Your task to perform on an android device: Search for hotels in Chicago Image 0: 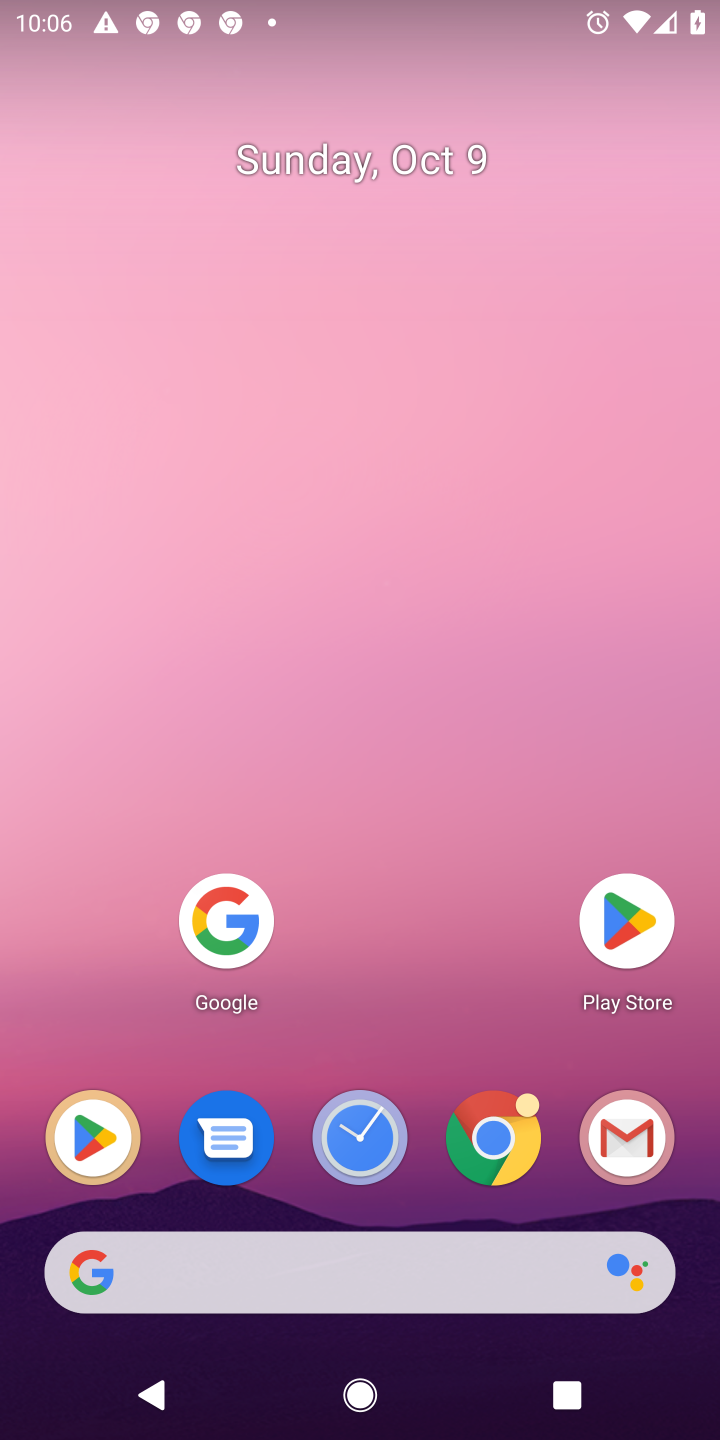
Step 0: click (203, 934)
Your task to perform on an android device: Search for hotels in Chicago Image 1: 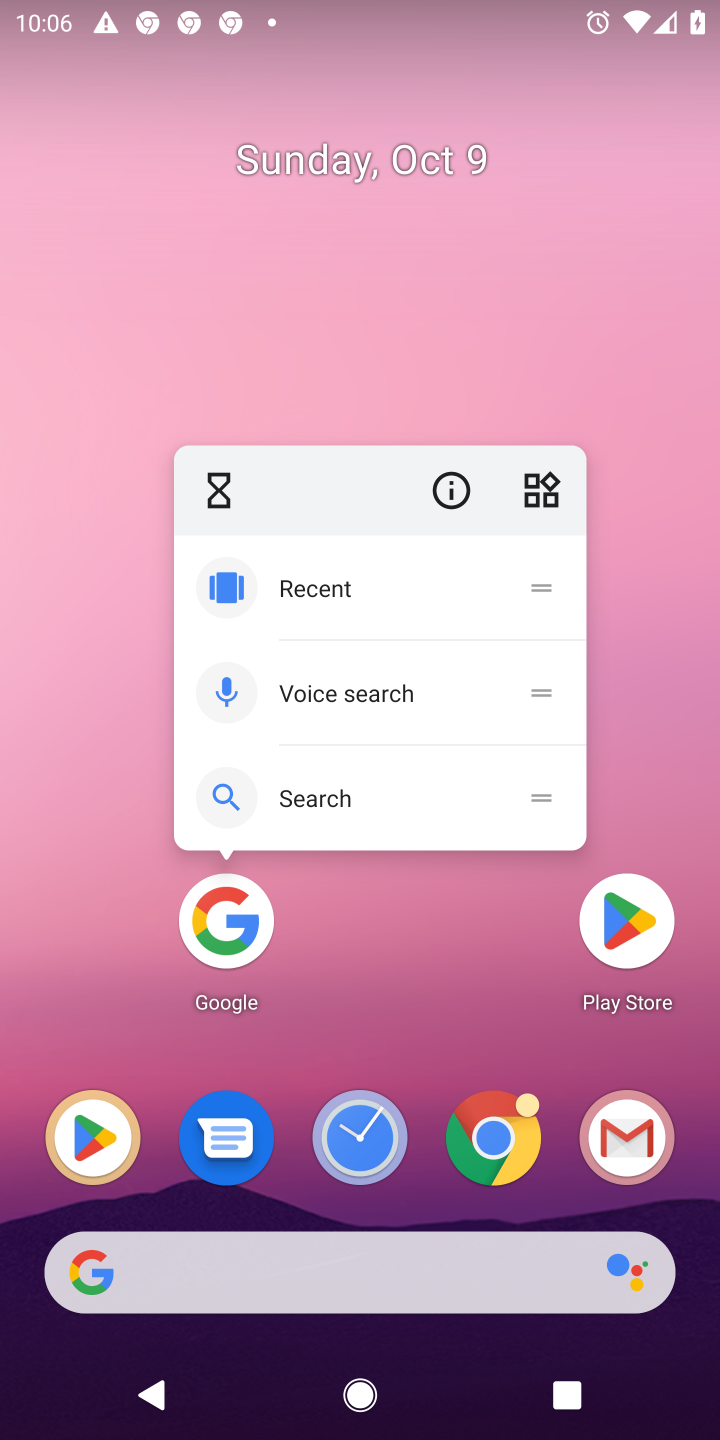
Step 1: click (242, 913)
Your task to perform on an android device: Search for hotels in Chicago Image 2: 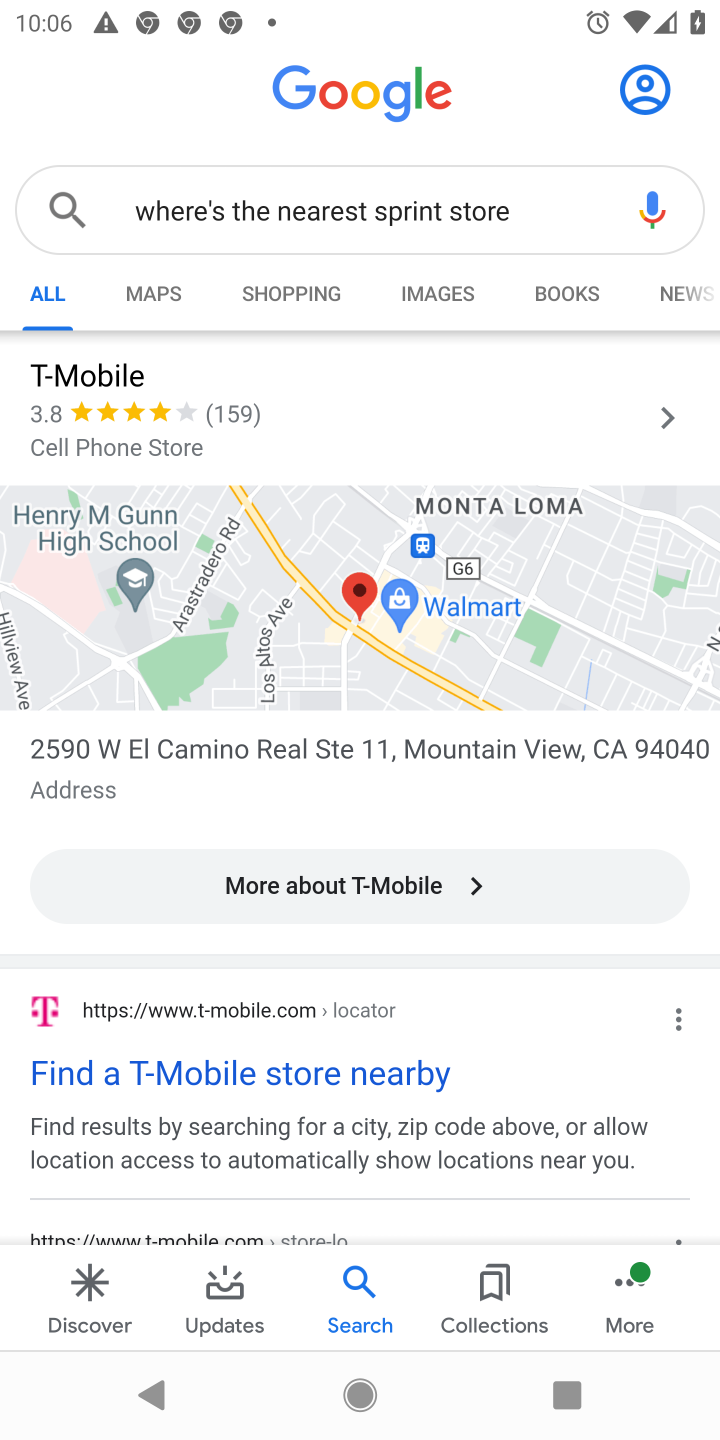
Step 2: click (520, 219)
Your task to perform on an android device: Search for hotels in Chicago Image 3: 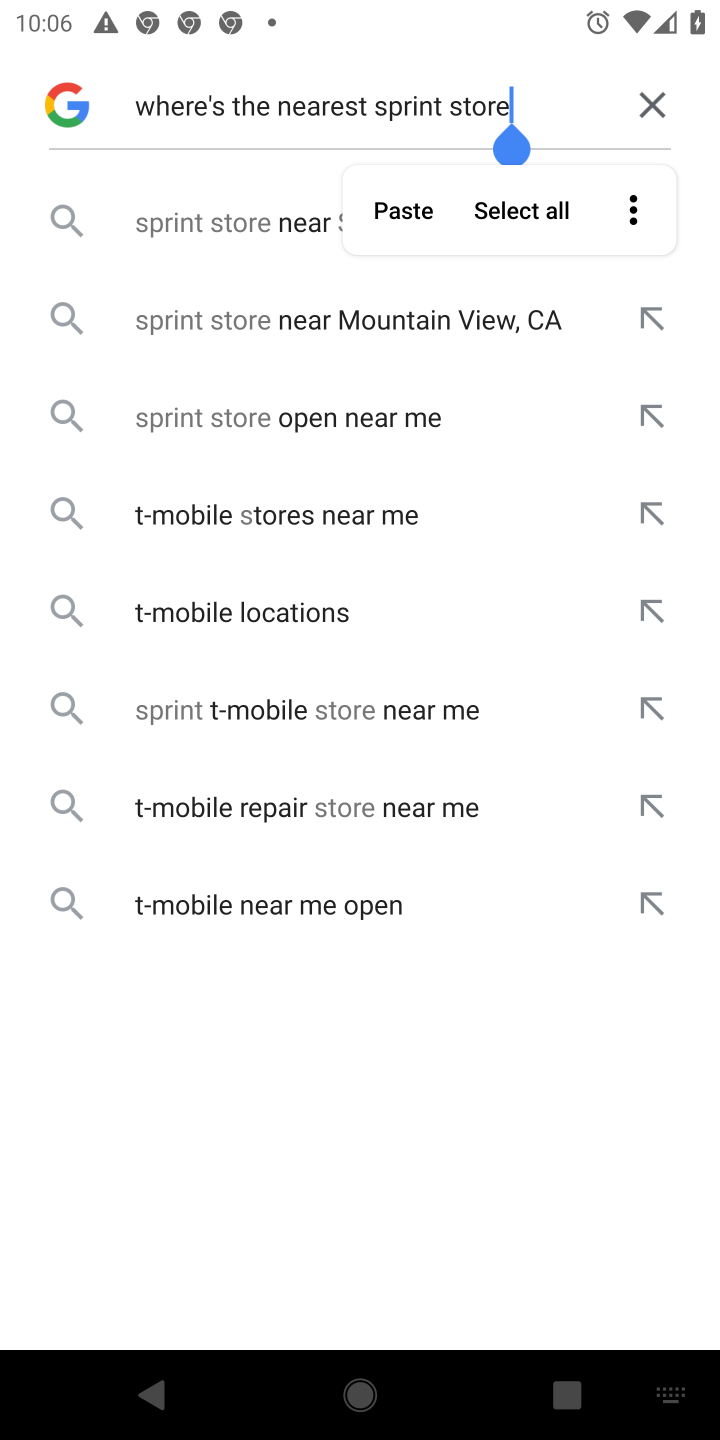
Step 3: click (651, 98)
Your task to perform on an android device: Search for hotels in Chicago Image 4: 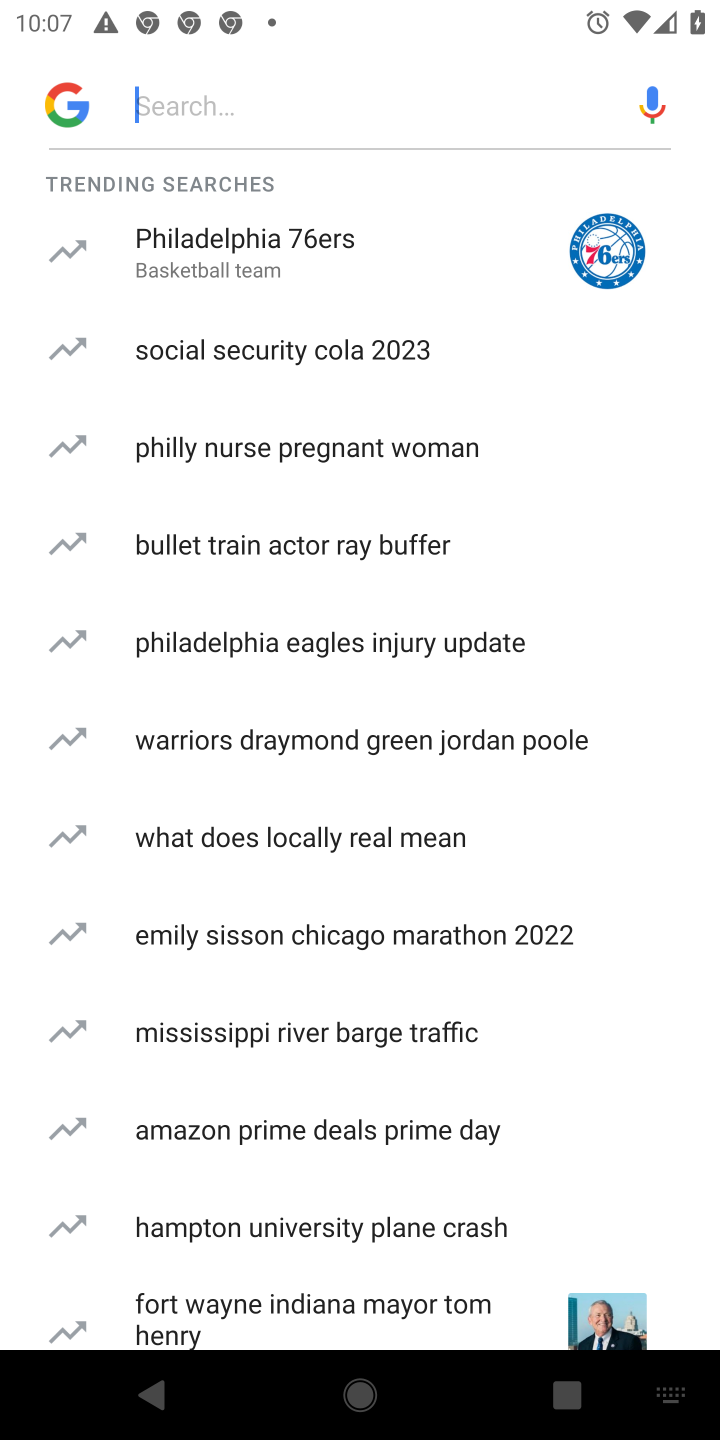
Step 4: click (278, 92)
Your task to perform on an android device: Search for hotels in Chicago Image 5: 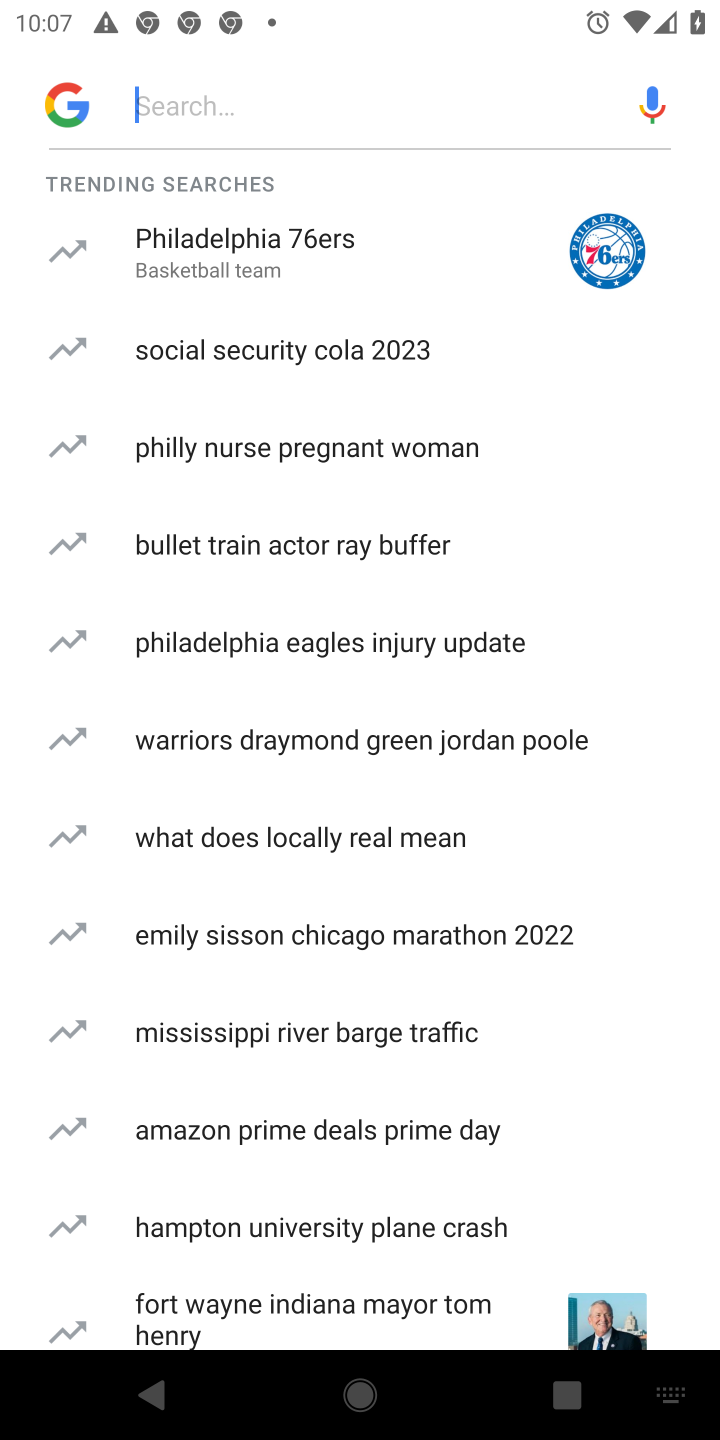
Step 5: type "Search for hotels in Chicago "
Your task to perform on an android device: Search for hotels in Chicago Image 6: 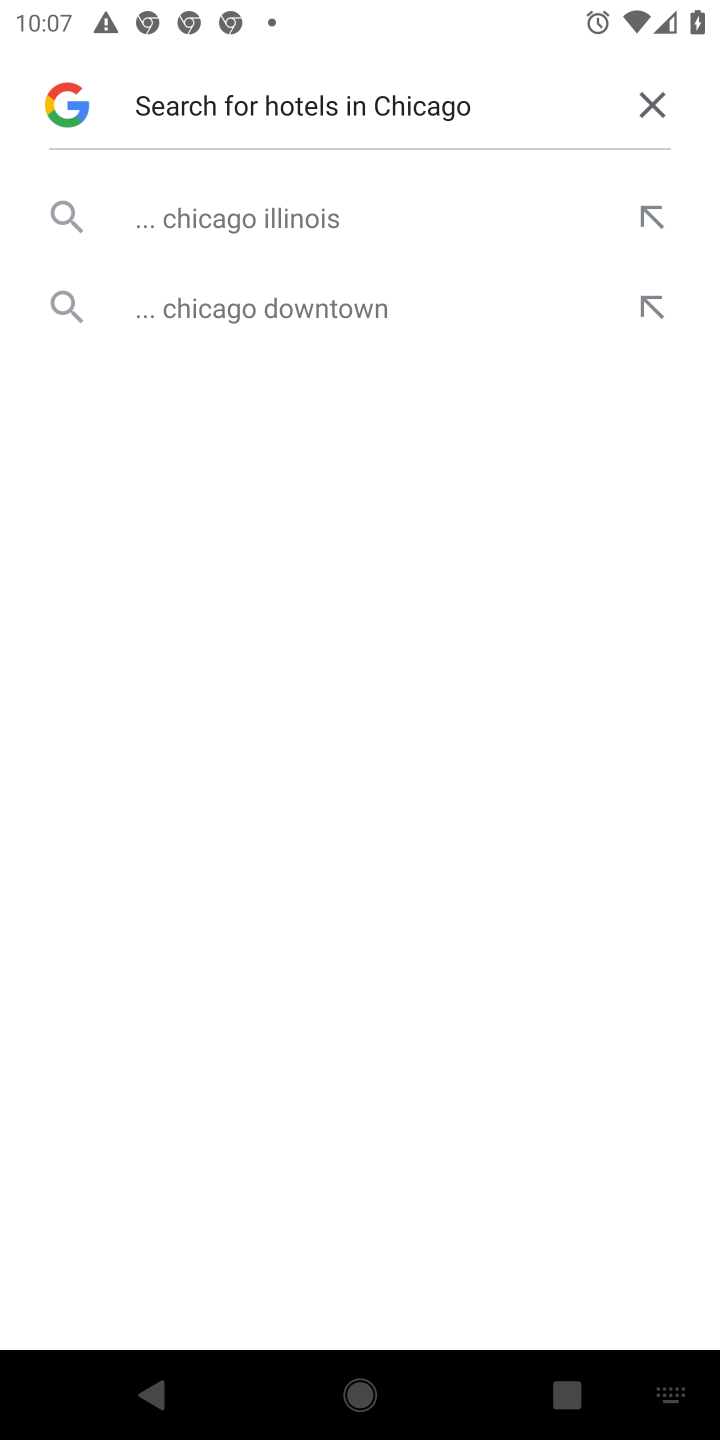
Step 6: click (297, 221)
Your task to perform on an android device: Search for hotels in Chicago Image 7: 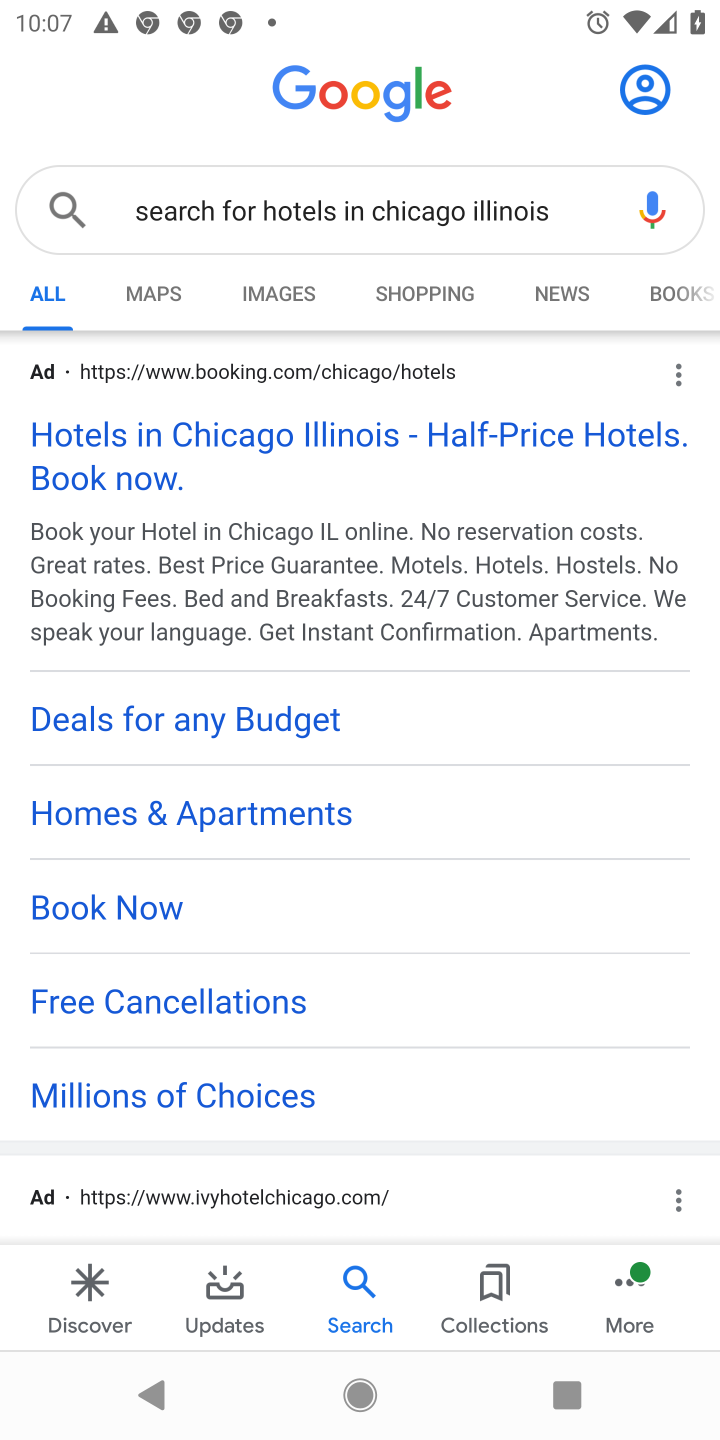
Step 7: click (228, 449)
Your task to perform on an android device: Search for hotels in Chicago Image 8: 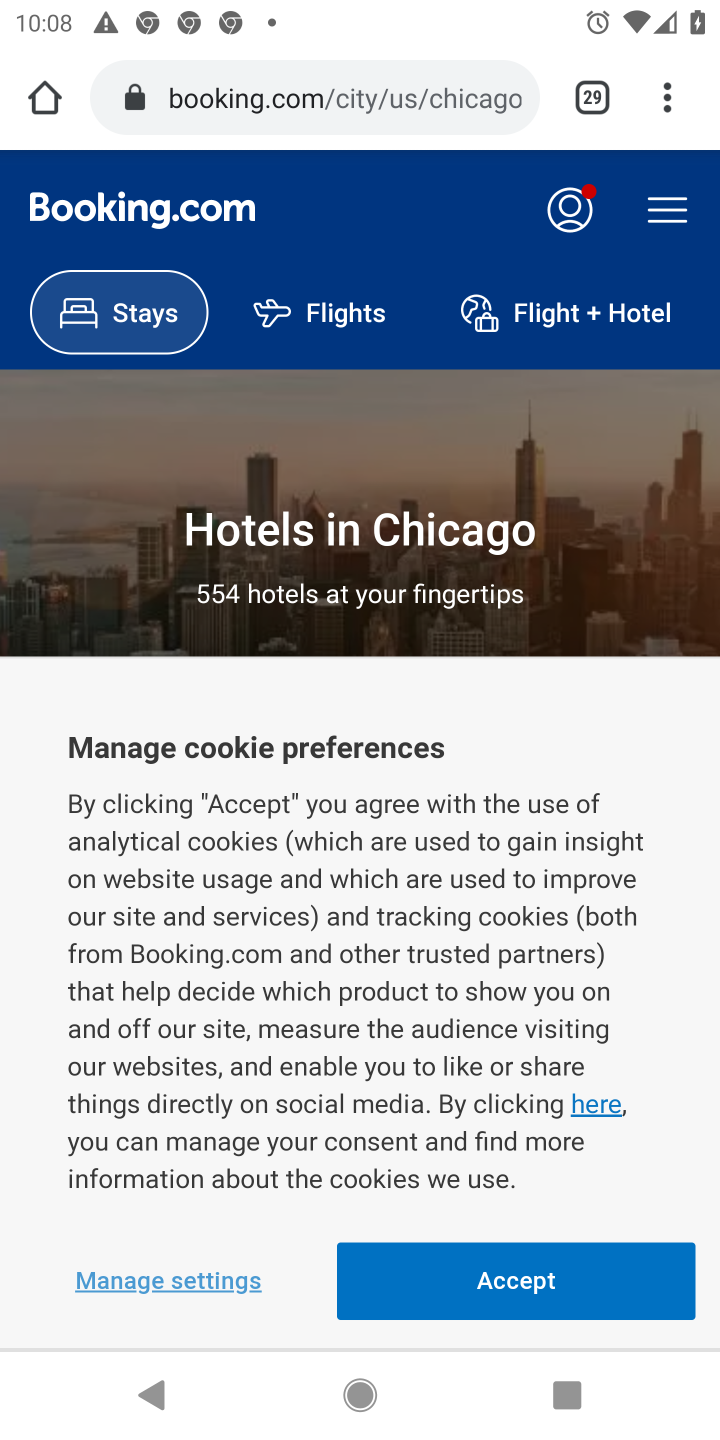
Step 8: click (515, 1253)
Your task to perform on an android device: Search for hotels in Chicago Image 9: 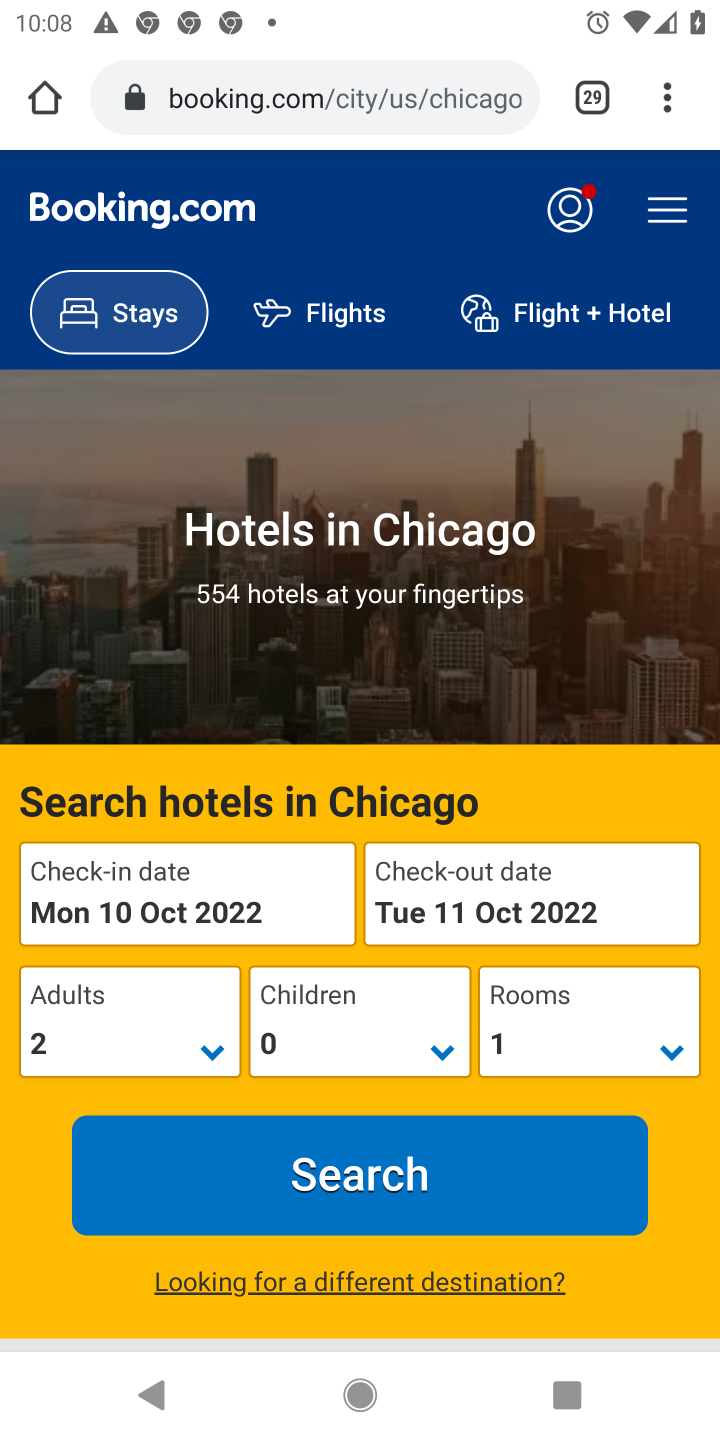
Step 9: click (337, 1186)
Your task to perform on an android device: Search for hotels in Chicago Image 10: 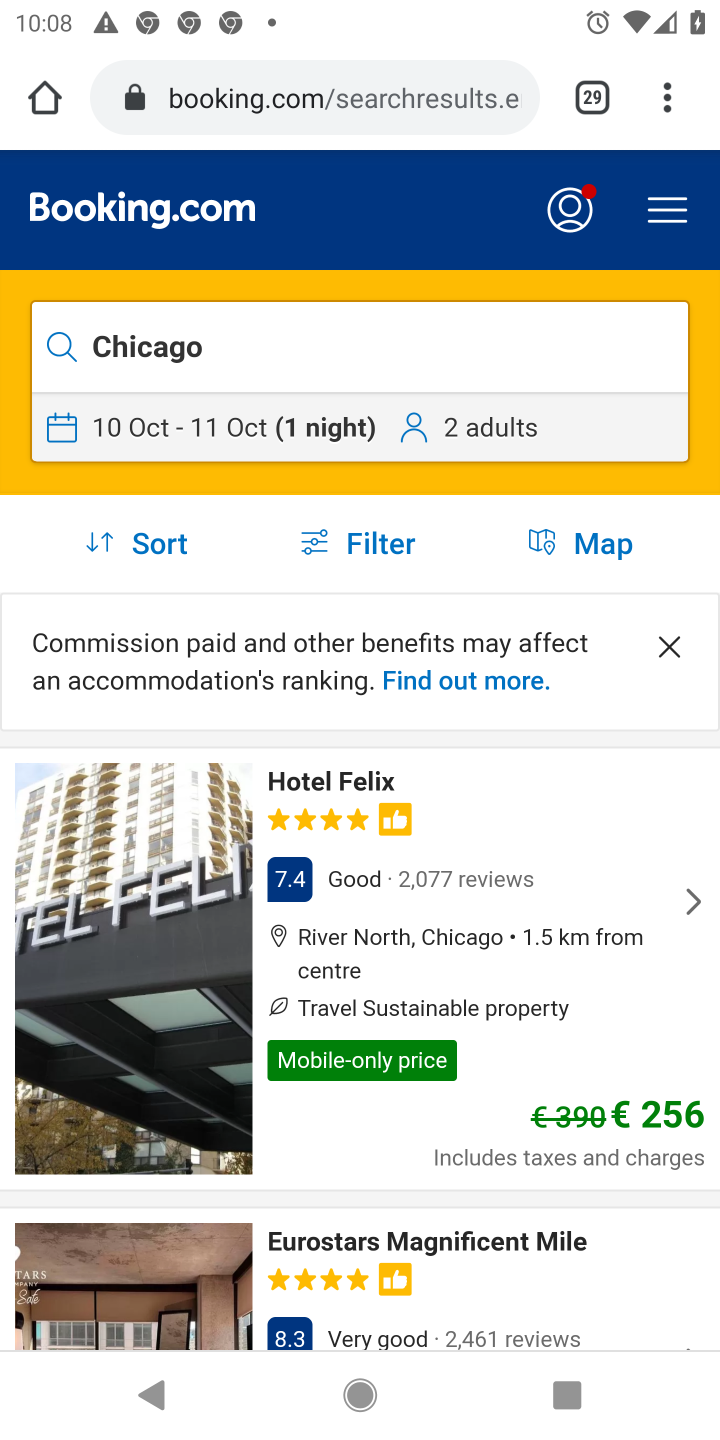
Step 10: task complete